Your task to perform on an android device: check storage Image 0: 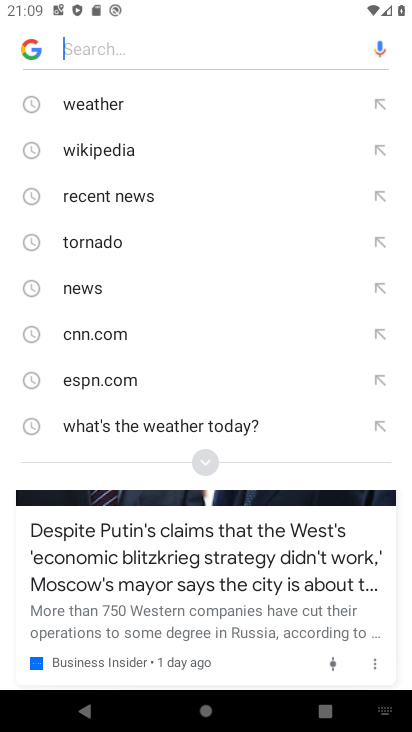
Step 0: press home button
Your task to perform on an android device: check storage Image 1: 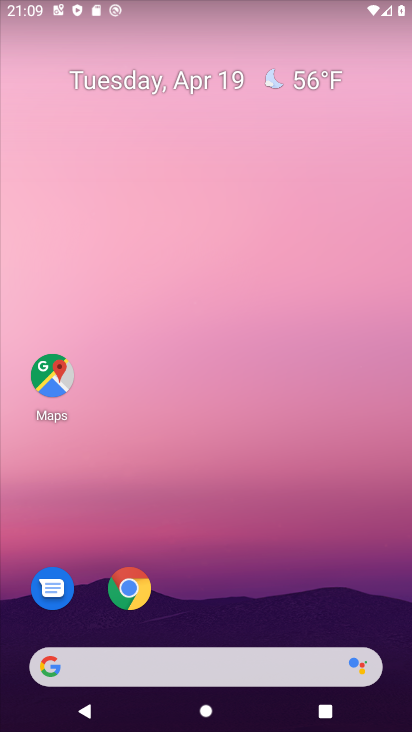
Step 1: drag from (241, 590) to (275, 171)
Your task to perform on an android device: check storage Image 2: 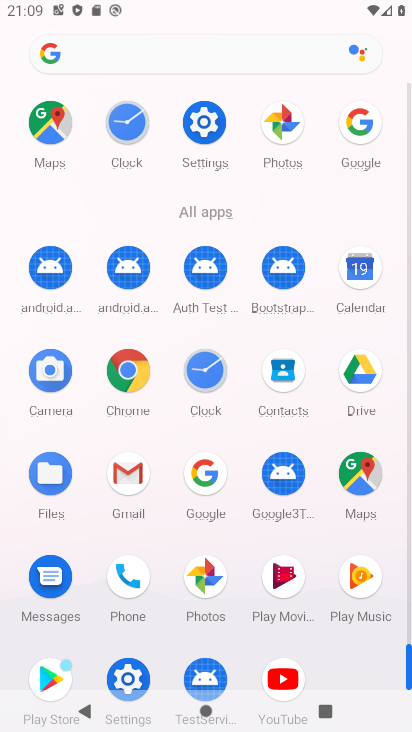
Step 2: click (207, 122)
Your task to perform on an android device: check storage Image 3: 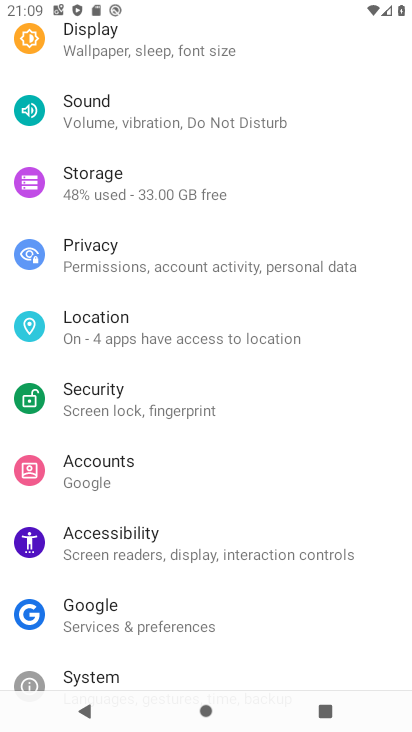
Step 3: click (108, 177)
Your task to perform on an android device: check storage Image 4: 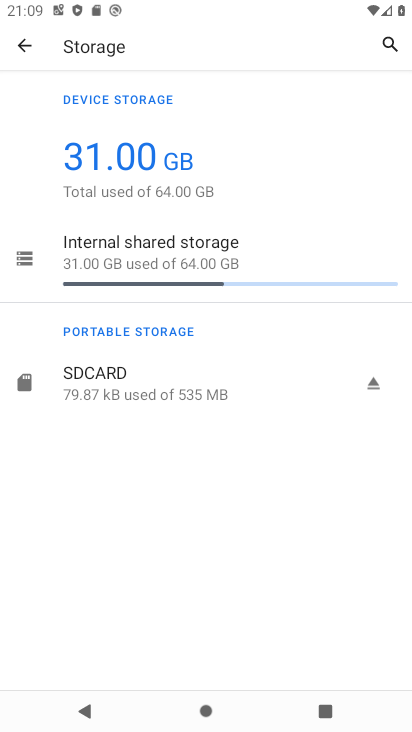
Step 4: task complete